Your task to perform on an android device: turn off notifications in google photos Image 0: 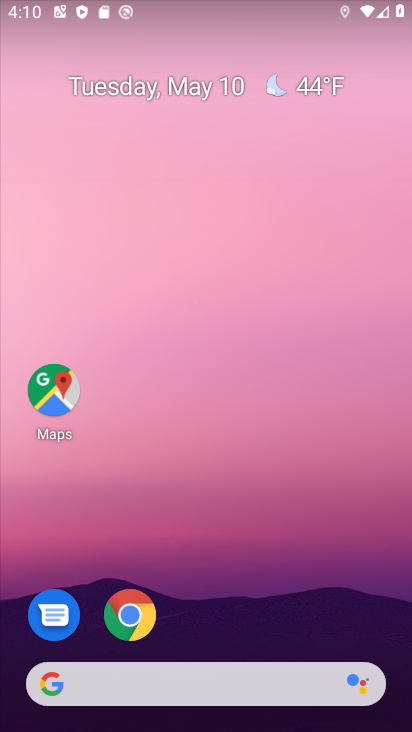
Step 0: drag from (198, 722) to (207, 163)
Your task to perform on an android device: turn off notifications in google photos Image 1: 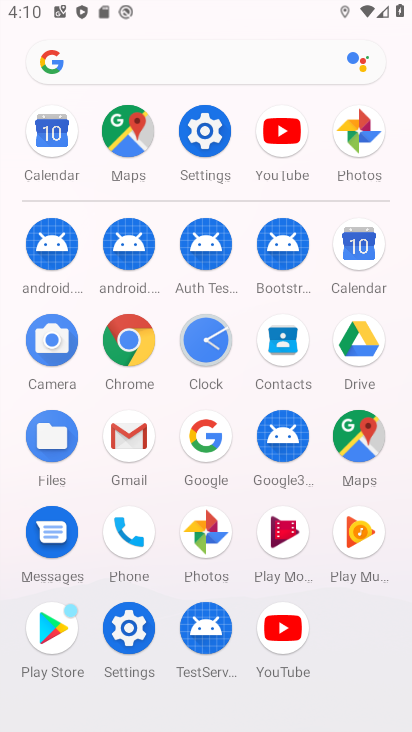
Step 1: click (212, 528)
Your task to perform on an android device: turn off notifications in google photos Image 2: 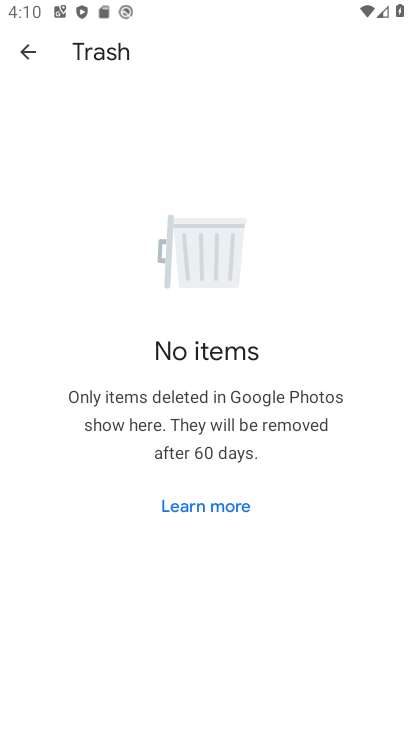
Step 2: press home button
Your task to perform on an android device: turn off notifications in google photos Image 3: 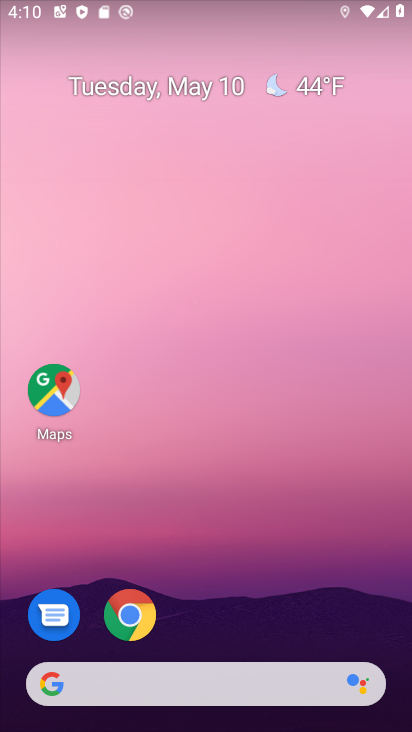
Step 3: drag from (224, 727) to (227, 179)
Your task to perform on an android device: turn off notifications in google photos Image 4: 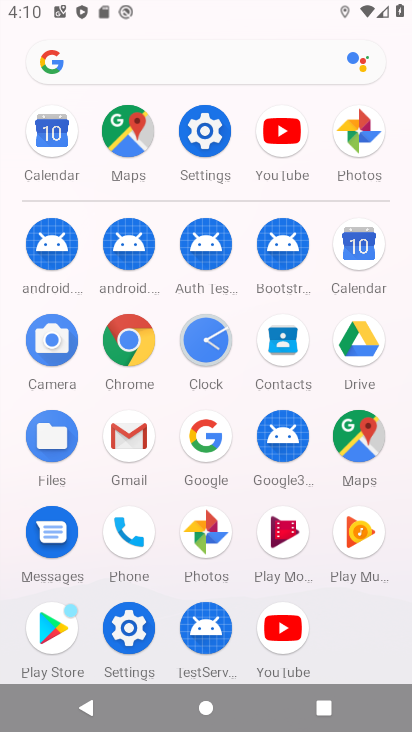
Step 4: click (207, 522)
Your task to perform on an android device: turn off notifications in google photos Image 5: 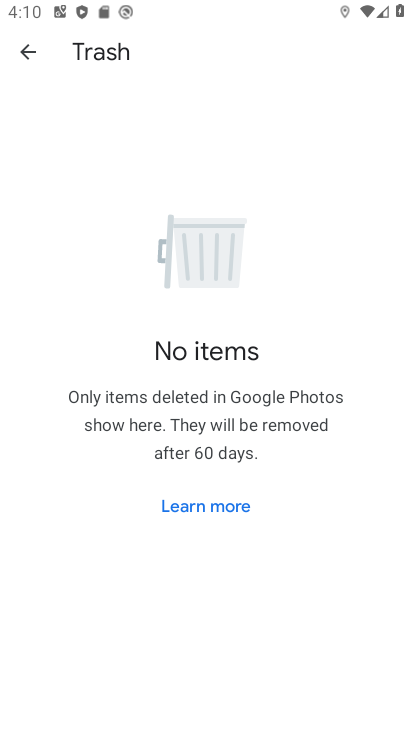
Step 5: click (27, 44)
Your task to perform on an android device: turn off notifications in google photos Image 6: 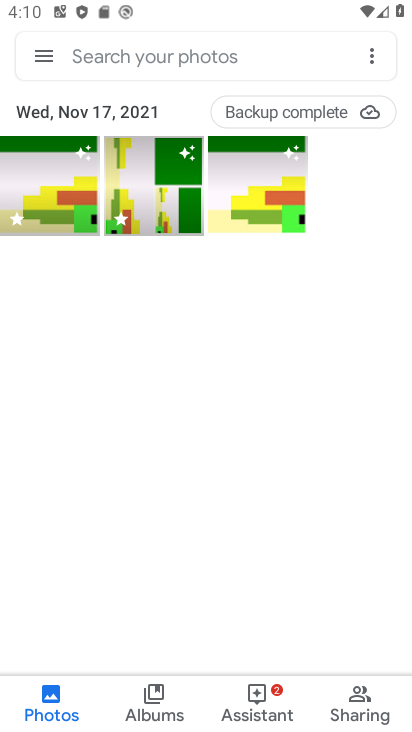
Step 6: click (46, 49)
Your task to perform on an android device: turn off notifications in google photos Image 7: 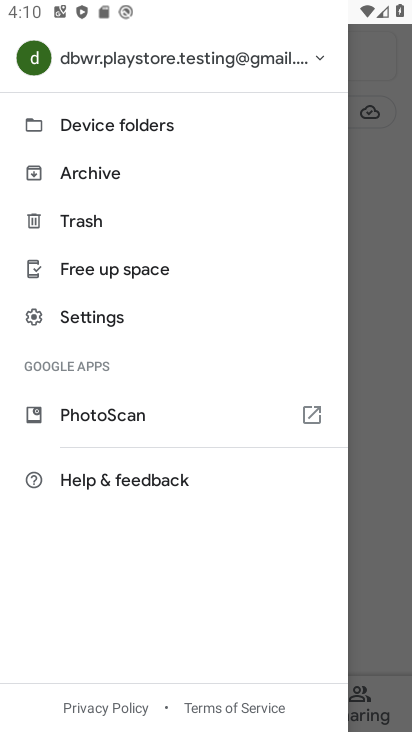
Step 7: click (93, 310)
Your task to perform on an android device: turn off notifications in google photos Image 8: 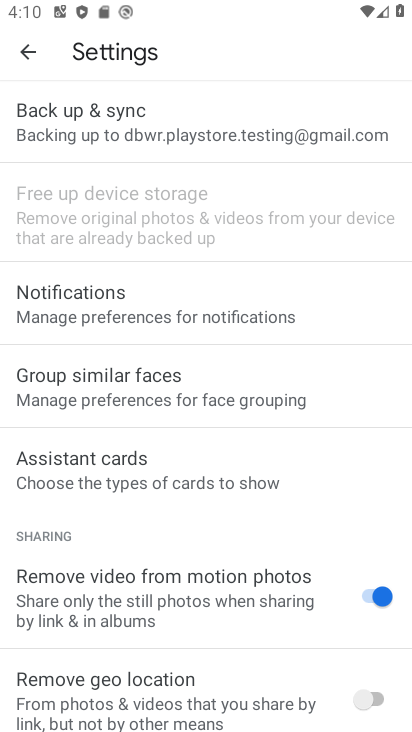
Step 8: click (128, 310)
Your task to perform on an android device: turn off notifications in google photos Image 9: 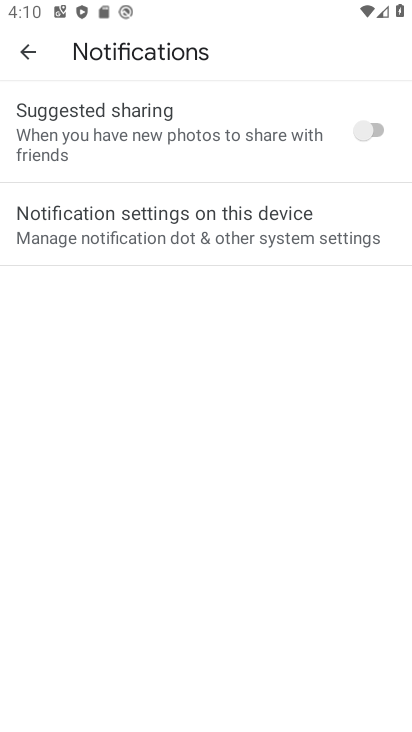
Step 9: click (162, 222)
Your task to perform on an android device: turn off notifications in google photos Image 10: 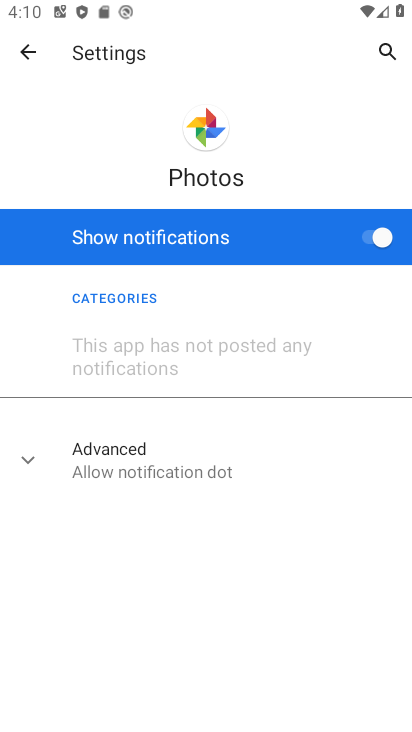
Step 10: click (364, 229)
Your task to perform on an android device: turn off notifications in google photos Image 11: 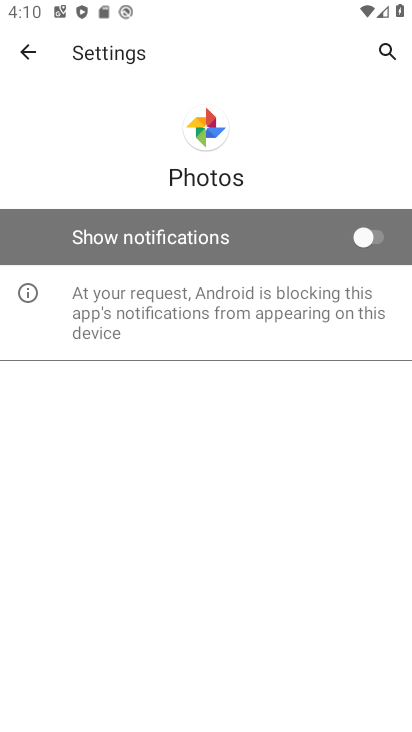
Step 11: task complete